Your task to perform on an android device: change the clock display to digital Image 0: 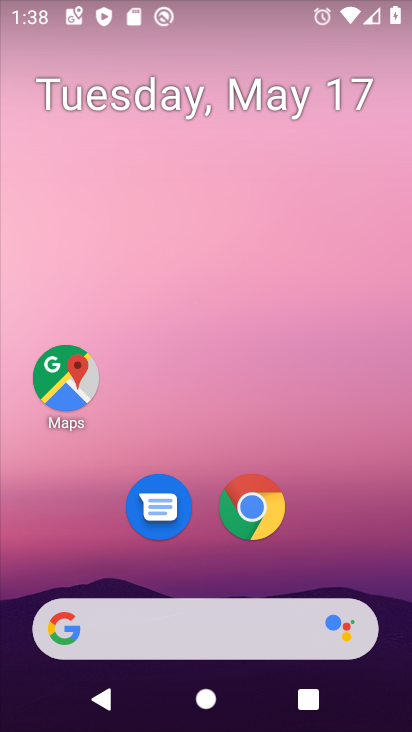
Step 0: drag from (313, 498) to (333, 137)
Your task to perform on an android device: change the clock display to digital Image 1: 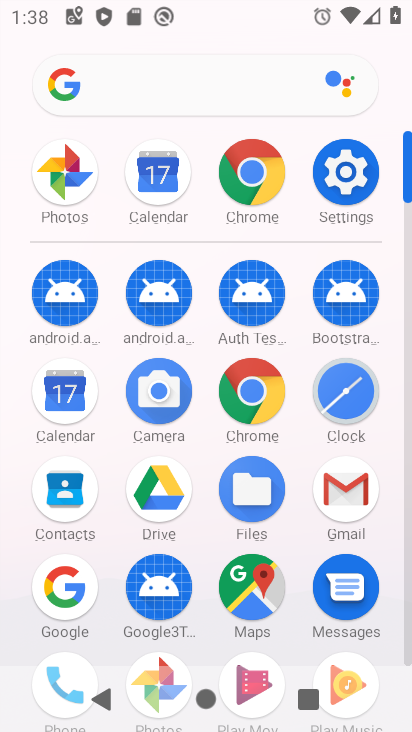
Step 1: click (346, 380)
Your task to perform on an android device: change the clock display to digital Image 2: 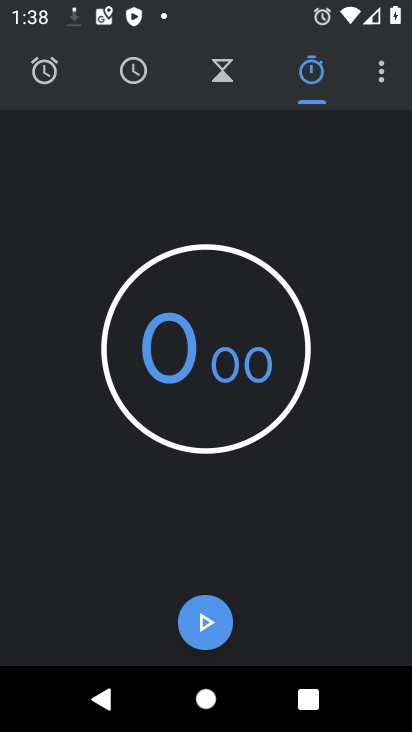
Step 2: click (379, 69)
Your task to perform on an android device: change the clock display to digital Image 3: 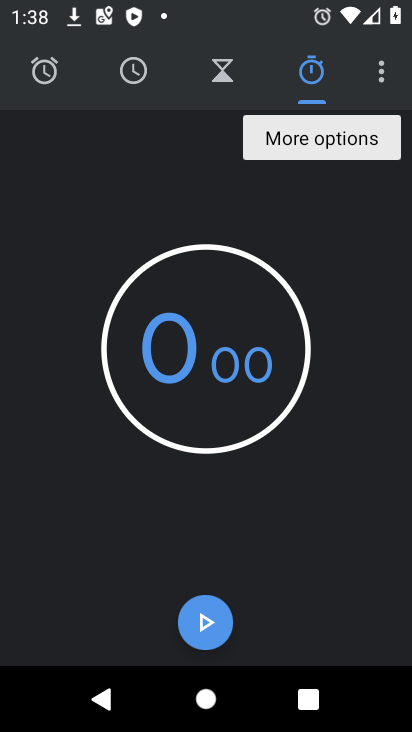
Step 3: click (371, 67)
Your task to perform on an android device: change the clock display to digital Image 4: 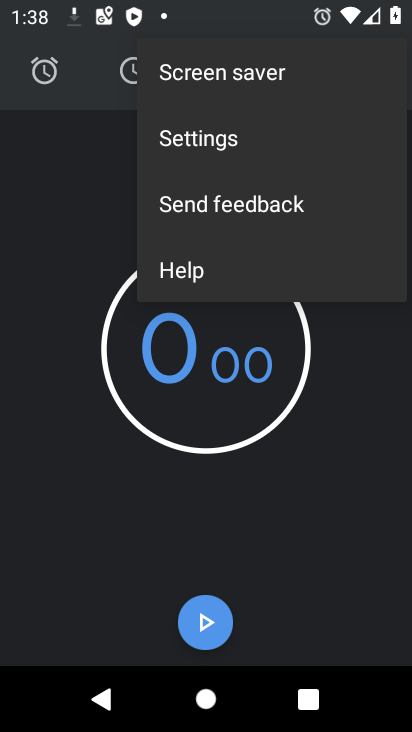
Step 4: click (213, 129)
Your task to perform on an android device: change the clock display to digital Image 5: 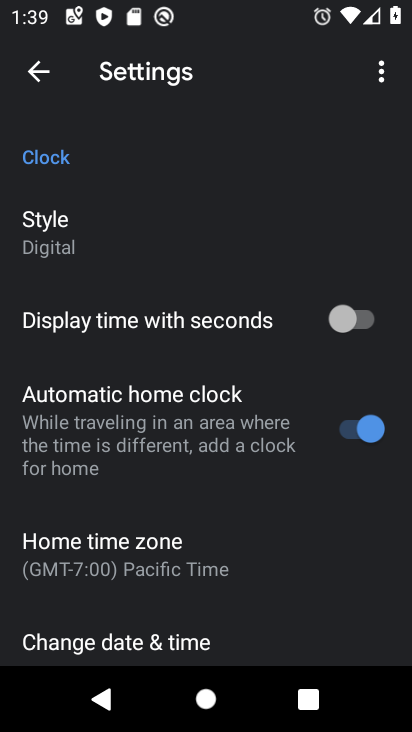
Step 5: click (111, 240)
Your task to perform on an android device: change the clock display to digital Image 6: 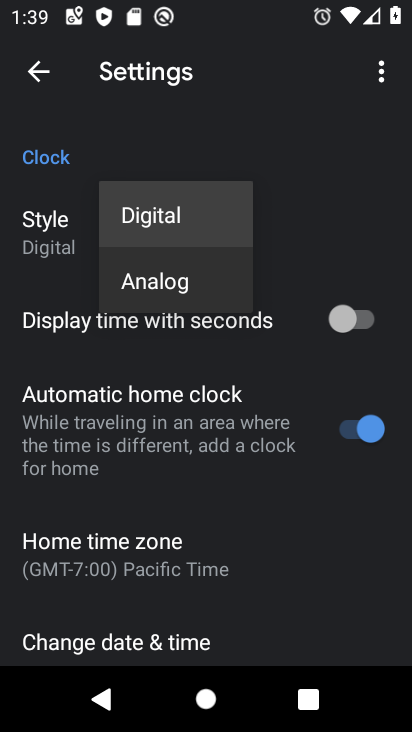
Step 6: task complete